Your task to perform on an android device: Open Youtube and go to "Your channel" Image 0: 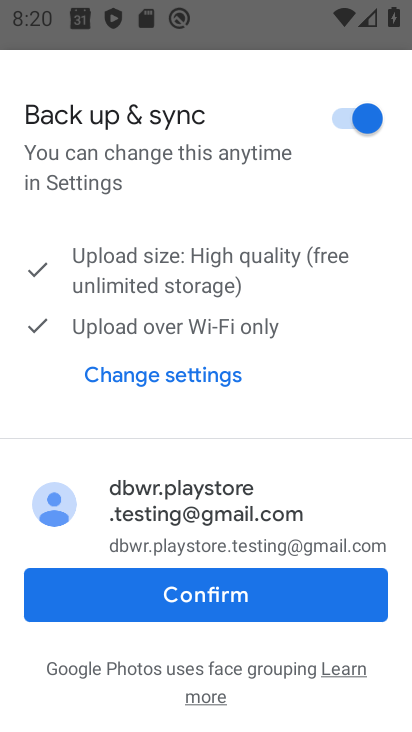
Step 0: press back button
Your task to perform on an android device: Open Youtube and go to "Your channel" Image 1: 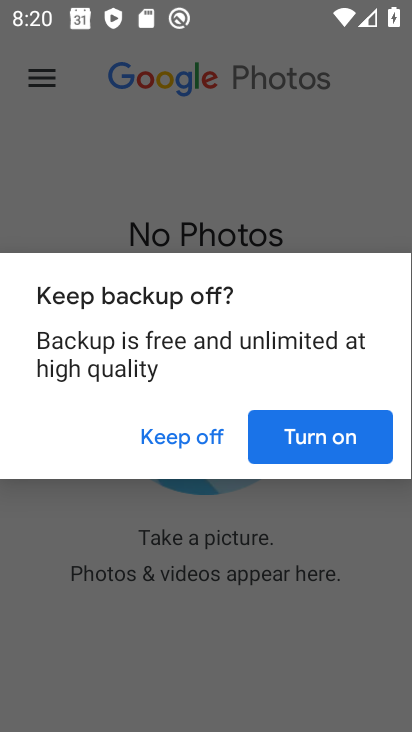
Step 1: press back button
Your task to perform on an android device: Open Youtube and go to "Your channel" Image 2: 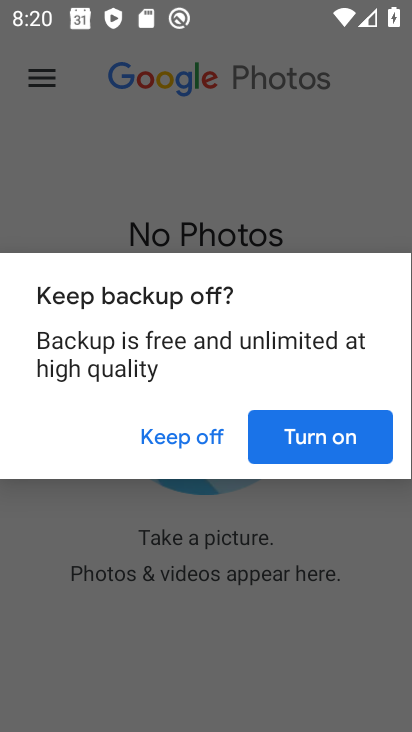
Step 2: press home button
Your task to perform on an android device: Open Youtube and go to "Your channel" Image 3: 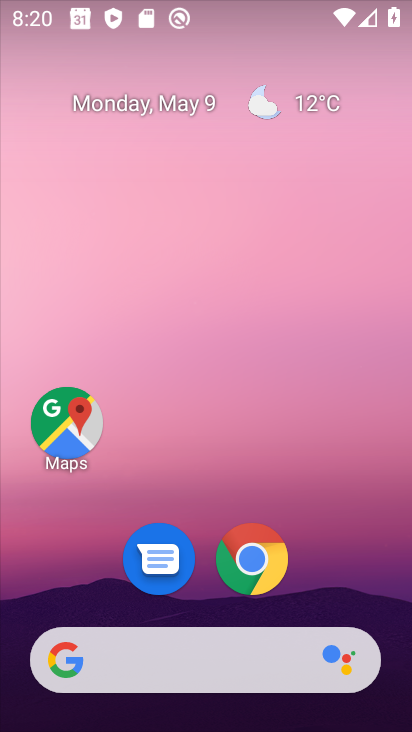
Step 3: drag from (204, 626) to (323, 2)
Your task to perform on an android device: Open Youtube and go to "Your channel" Image 4: 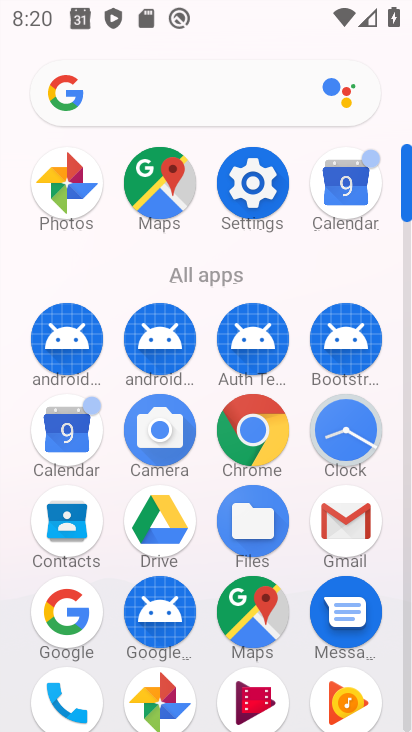
Step 4: drag from (199, 624) to (282, 23)
Your task to perform on an android device: Open Youtube and go to "Your channel" Image 5: 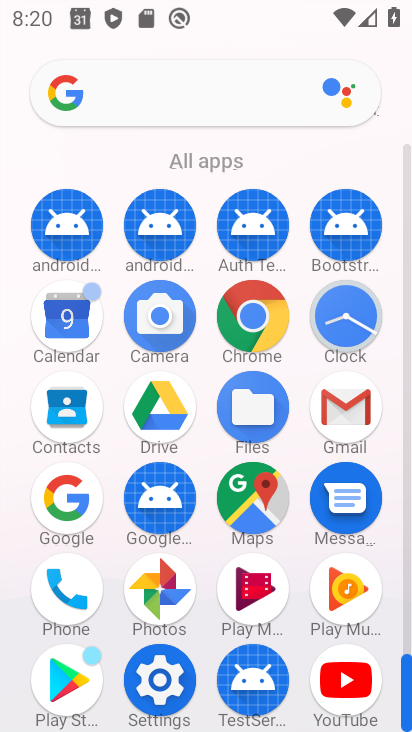
Step 5: click (349, 679)
Your task to perform on an android device: Open Youtube and go to "Your channel" Image 6: 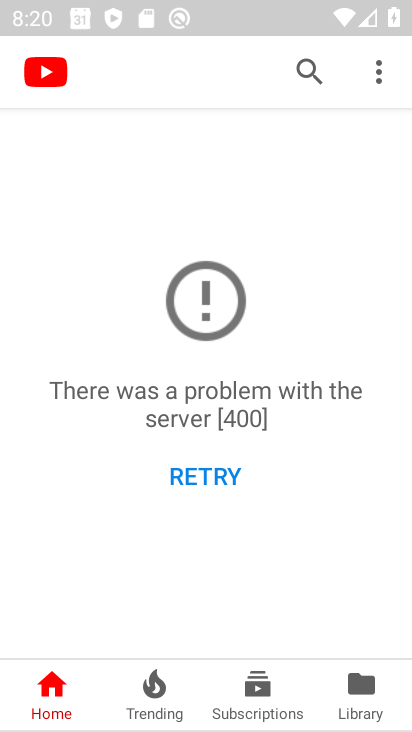
Step 6: click (384, 69)
Your task to perform on an android device: Open Youtube and go to "Your channel" Image 7: 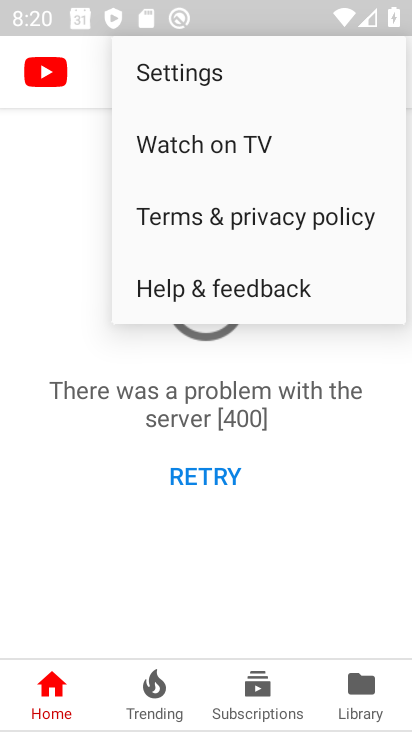
Step 7: click (47, 60)
Your task to perform on an android device: Open Youtube and go to "Your channel" Image 8: 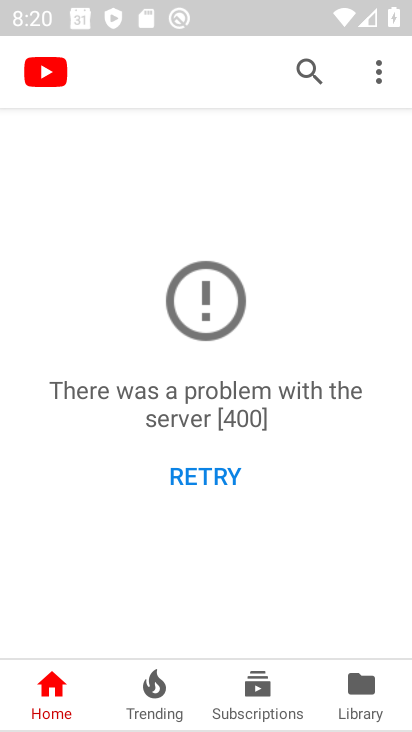
Step 8: click (47, 58)
Your task to perform on an android device: Open Youtube and go to "Your channel" Image 9: 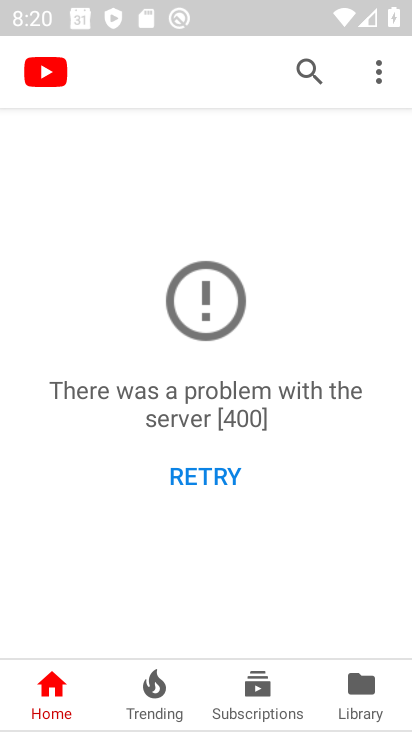
Step 9: click (45, 71)
Your task to perform on an android device: Open Youtube and go to "Your channel" Image 10: 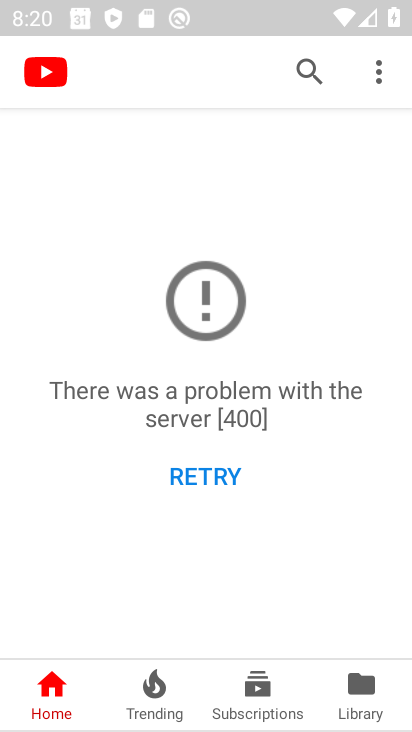
Step 10: click (350, 689)
Your task to perform on an android device: Open Youtube and go to "Your channel" Image 11: 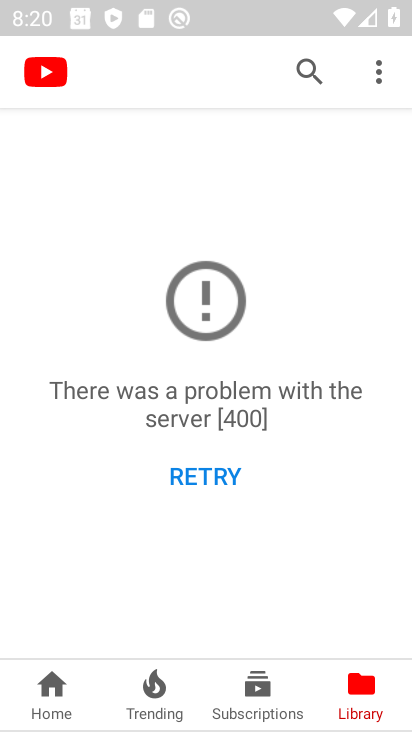
Step 11: click (369, 65)
Your task to perform on an android device: Open Youtube and go to "Your channel" Image 12: 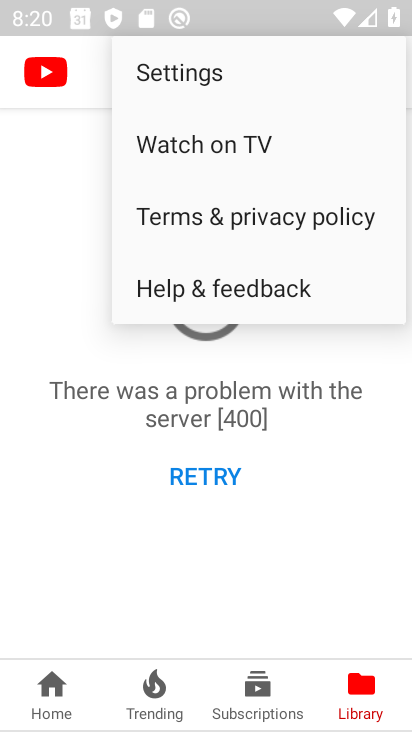
Step 12: click (184, 74)
Your task to perform on an android device: Open Youtube and go to "Your channel" Image 13: 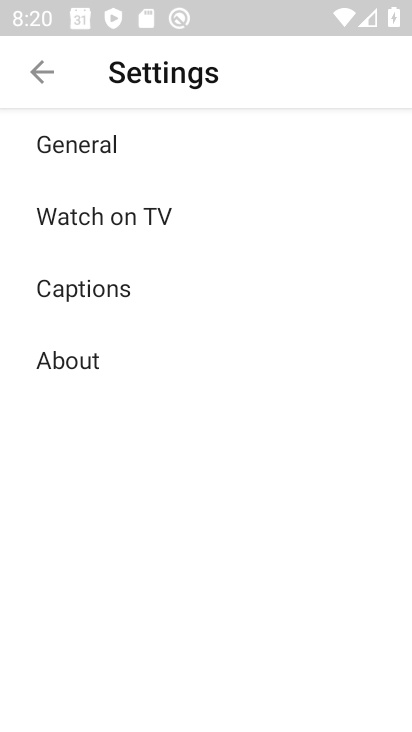
Step 13: click (97, 147)
Your task to perform on an android device: Open Youtube and go to "Your channel" Image 14: 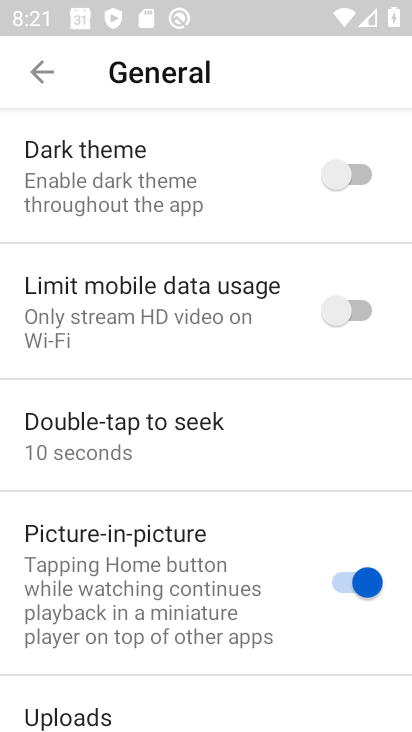
Step 14: task complete